Your task to perform on an android device: toggle notification dots Image 0: 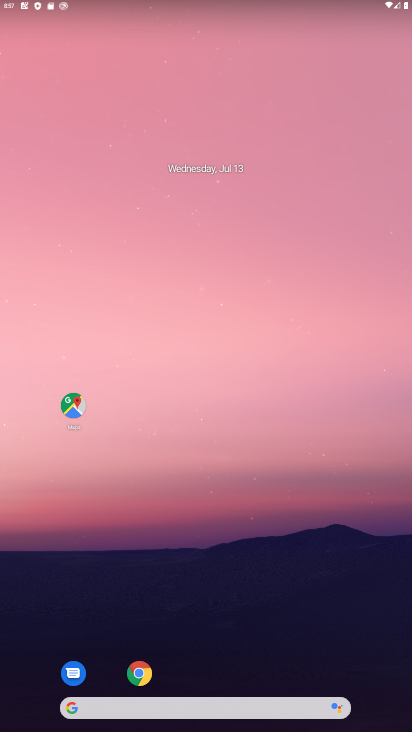
Step 0: drag from (221, 691) to (239, 17)
Your task to perform on an android device: toggle notification dots Image 1: 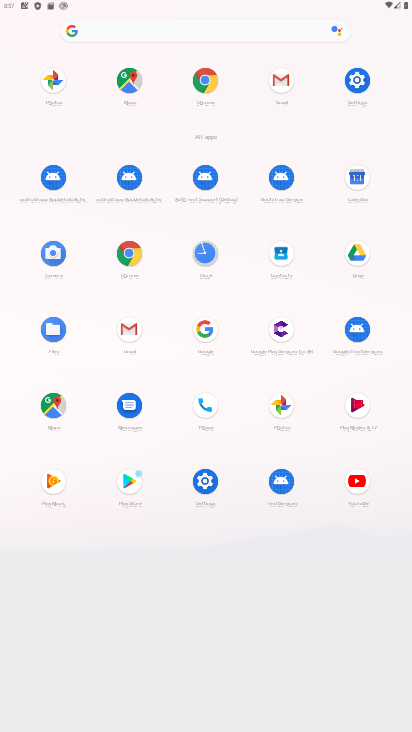
Step 1: click (361, 85)
Your task to perform on an android device: toggle notification dots Image 2: 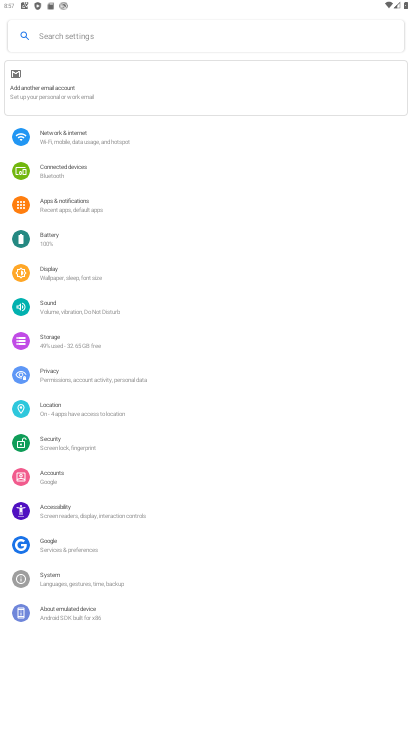
Step 2: click (72, 204)
Your task to perform on an android device: toggle notification dots Image 3: 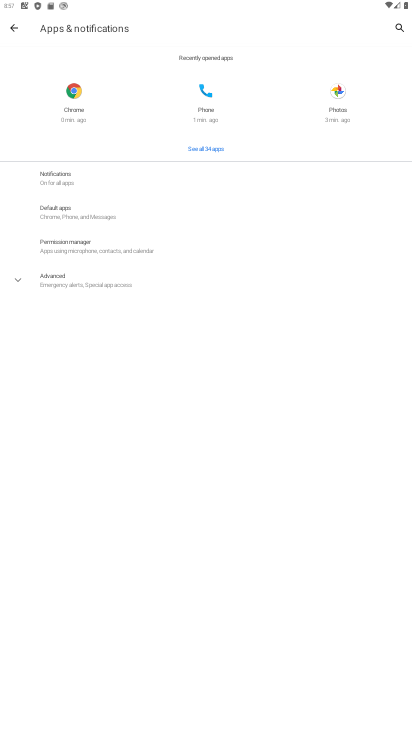
Step 3: click (68, 191)
Your task to perform on an android device: toggle notification dots Image 4: 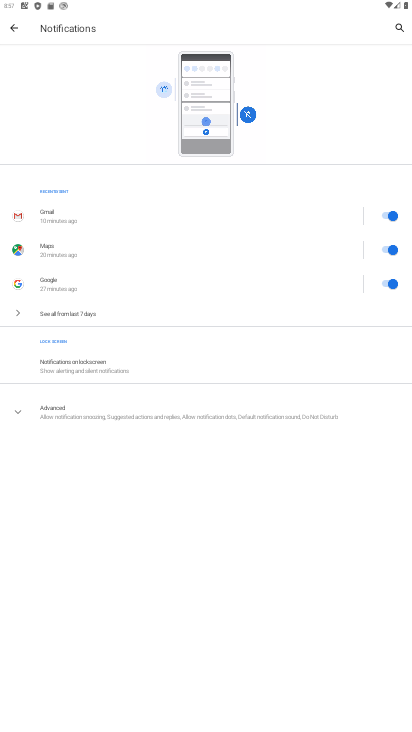
Step 4: click (95, 409)
Your task to perform on an android device: toggle notification dots Image 5: 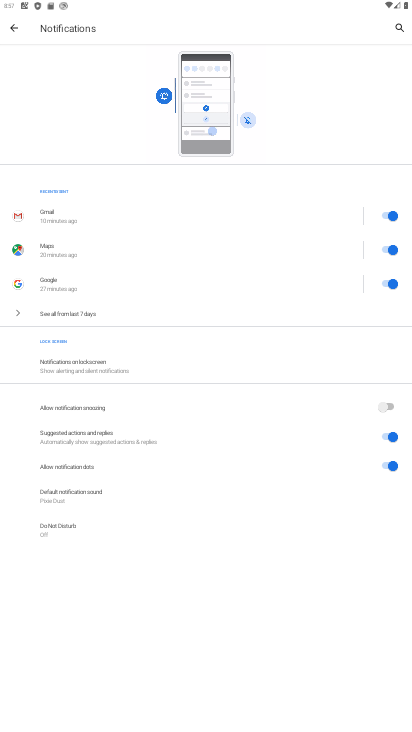
Step 5: click (392, 467)
Your task to perform on an android device: toggle notification dots Image 6: 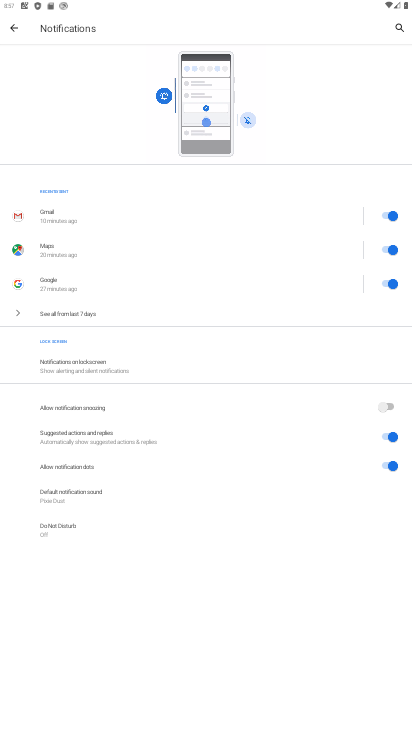
Step 6: click (392, 467)
Your task to perform on an android device: toggle notification dots Image 7: 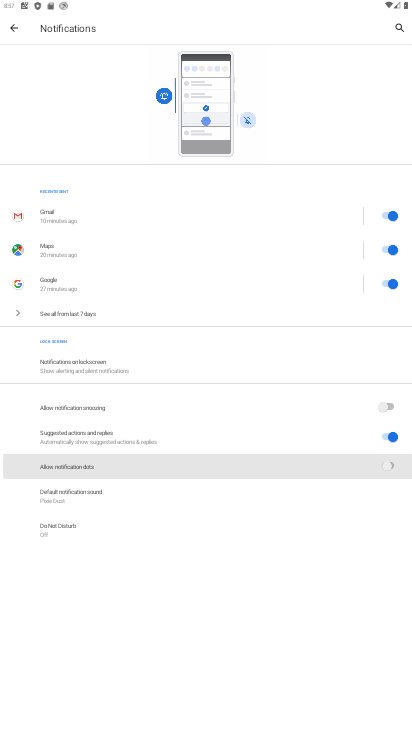
Step 7: click (392, 467)
Your task to perform on an android device: toggle notification dots Image 8: 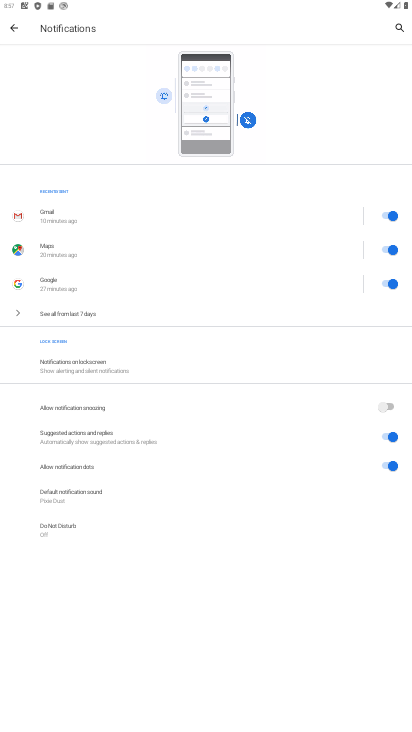
Step 8: click (392, 467)
Your task to perform on an android device: toggle notification dots Image 9: 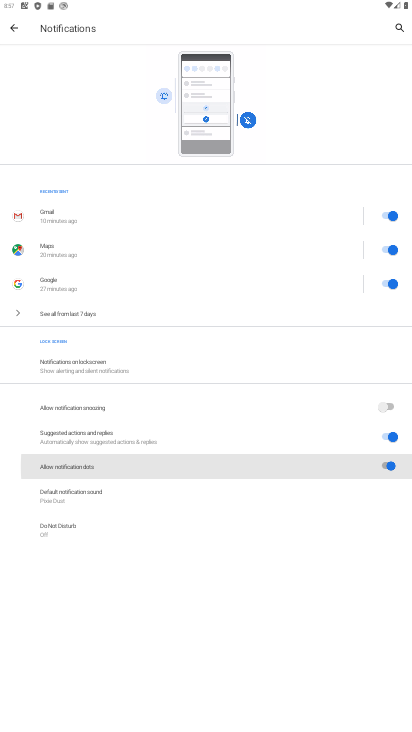
Step 9: click (392, 467)
Your task to perform on an android device: toggle notification dots Image 10: 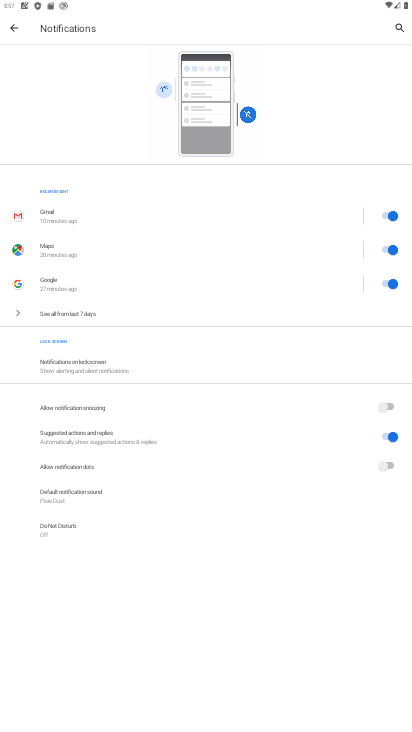
Step 10: task complete